Your task to perform on an android device: open app "DuckDuckGo Privacy Browser" Image 0: 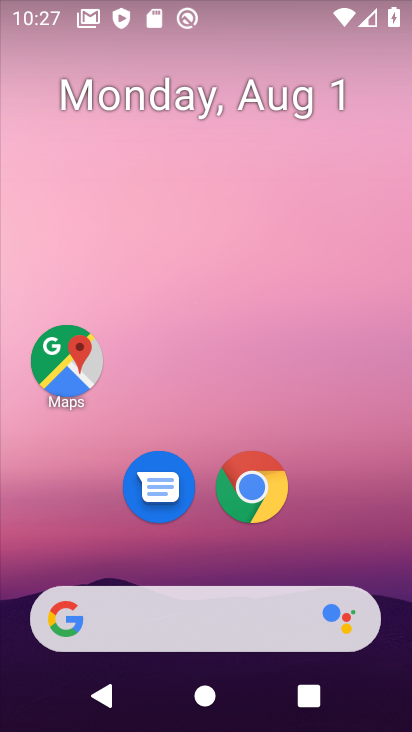
Step 0: drag from (241, 589) to (405, 368)
Your task to perform on an android device: open app "DuckDuckGo Privacy Browser" Image 1: 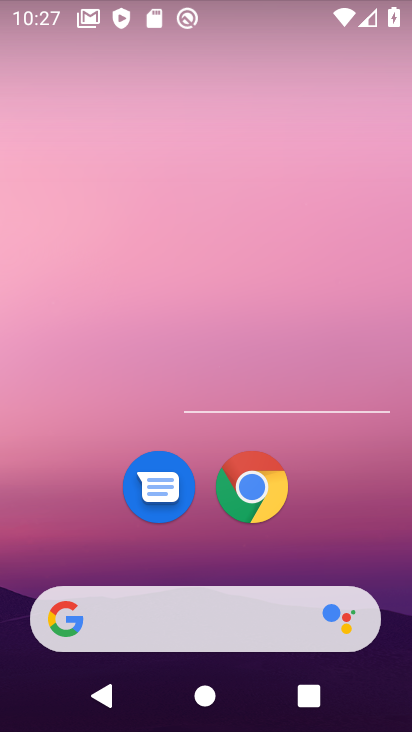
Step 1: drag from (204, 532) to (398, 520)
Your task to perform on an android device: open app "DuckDuckGo Privacy Browser" Image 2: 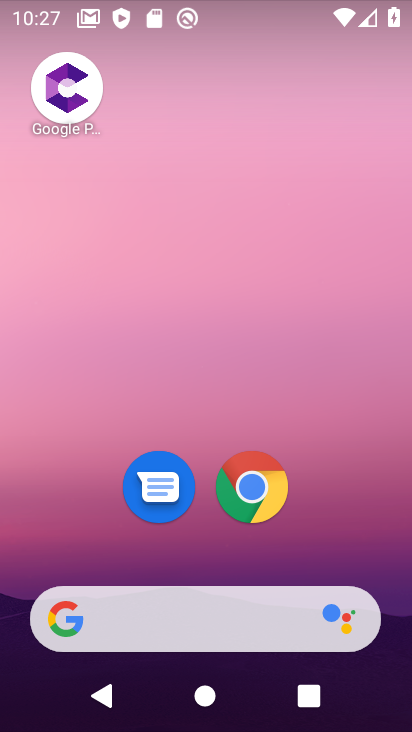
Step 2: drag from (228, 559) to (226, 2)
Your task to perform on an android device: open app "DuckDuckGo Privacy Browser" Image 3: 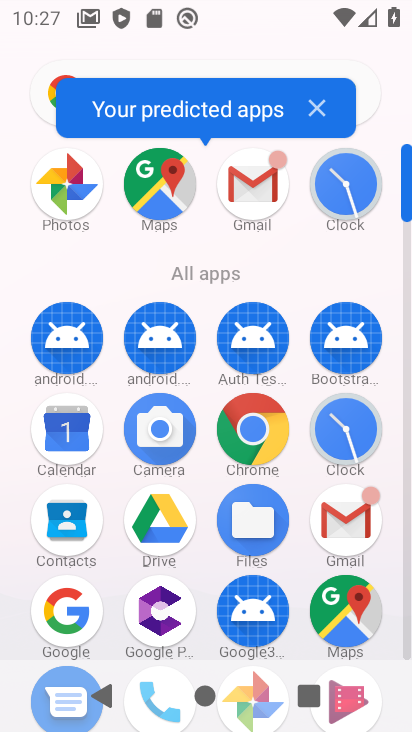
Step 3: drag from (195, 568) to (195, 10)
Your task to perform on an android device: open app "DuckDuckGo Privacy Browser" Image 4: 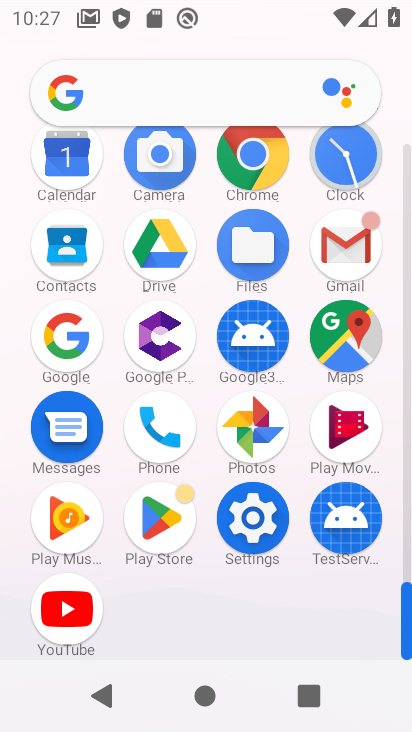
Step 4: click (165, 535)
Your task to perform on an android device: open app "DuckDuckGo Privacy Browser" Image 5: 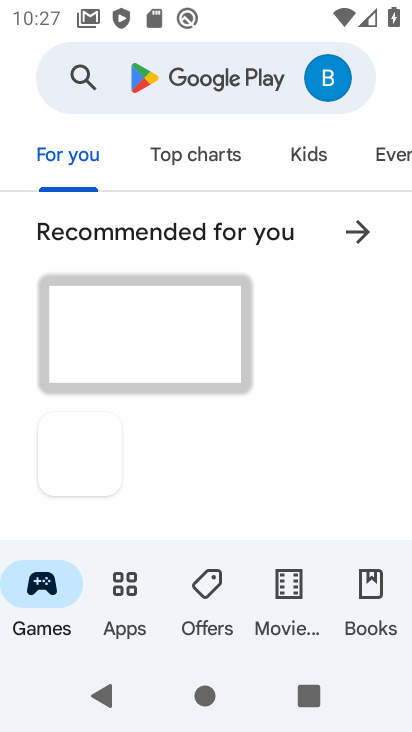
Step 5: click (185, 95)
Your task to perform on an android device: open app "DuckDuckGo Privacy Browser" Image 6: 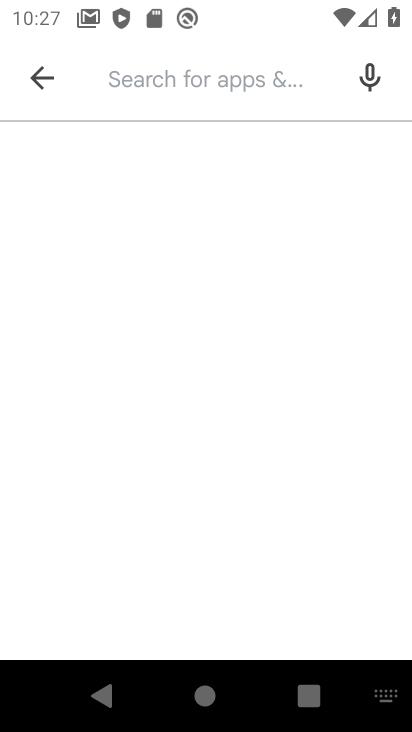
Step 6: type "DuckDuckGo Privacy Browser"
Your task to perform on an android device: open app "DuckDuckGo Privacy Browser" Image 7: 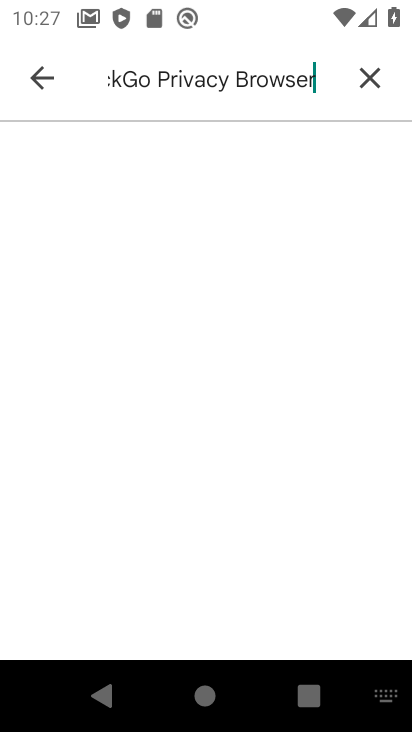
Step 7: type ""
Your task to perform on an android device: open app "DuckDuckGo Privacy Browser" Image 8: 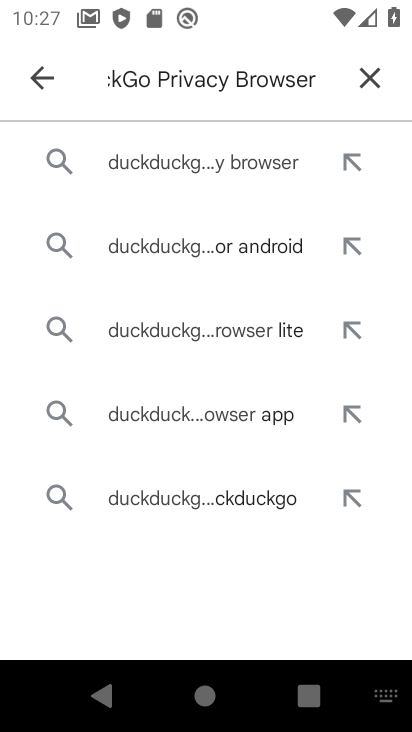
Step 8: click (137, 188)
Your task to perform on an android device: open app "DuckDuckGo Privacy Browser" Image 9: 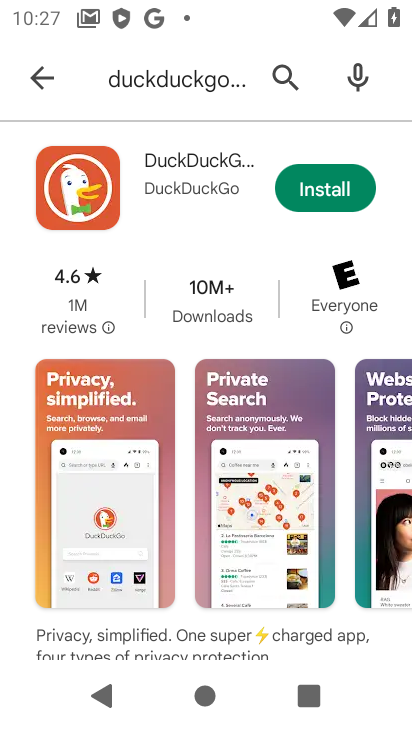
Step 9: task complete